Your task to perform on an android device: change your default location settings in chrome Image 0: 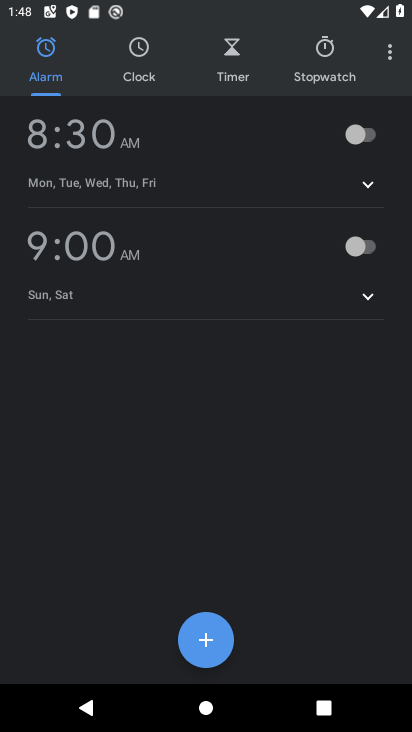
Step 0: press home button
Your task to perform on an android device: change your default location settings in chrome Image 1: 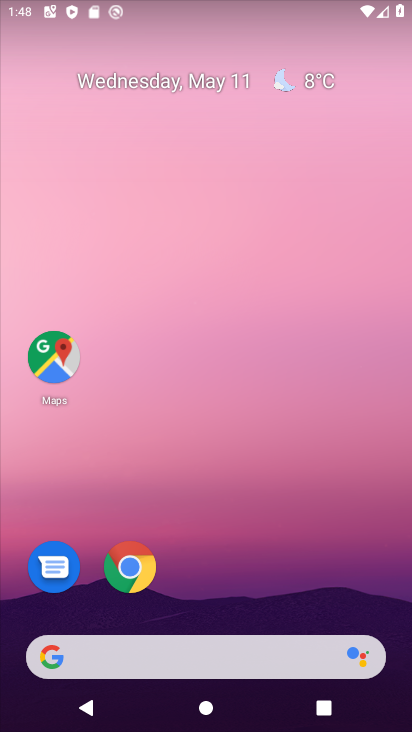
Step 1: click (123, 567)
Your task to perform on an android device: change your default location settings in chrome Image 2: 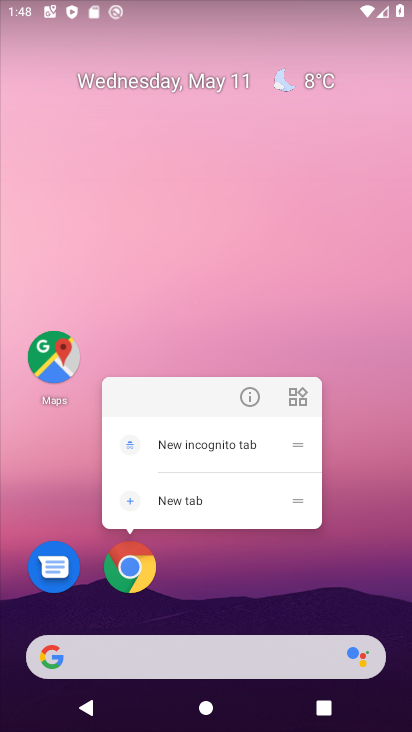
Step 2: click (123, 567)
Your task to perform on an android device: change your default location settings in chrome Image 3: 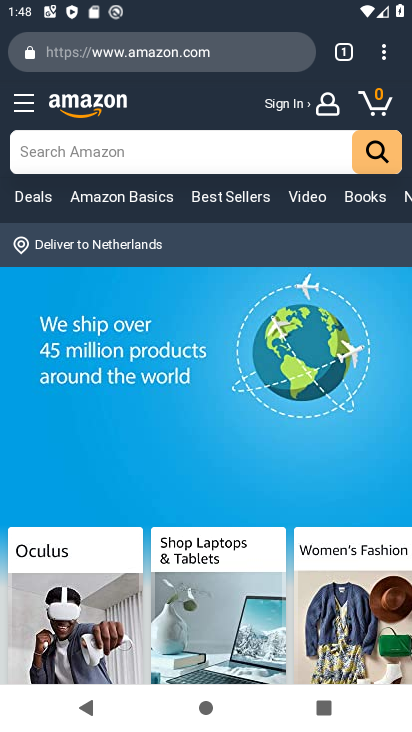
Step 3: click (388, 51)
Your task to perform on an android device: change your default location settings in chrome Image 4: 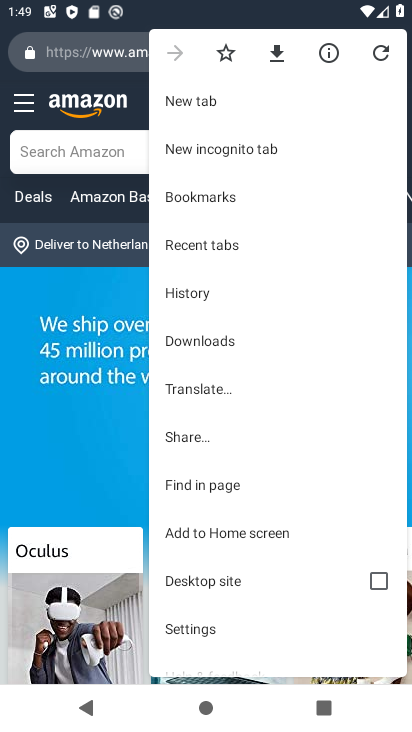
Step 4: click (231, 625)
Your task to perform on an android device: change your default location settings in chrome Image 5: 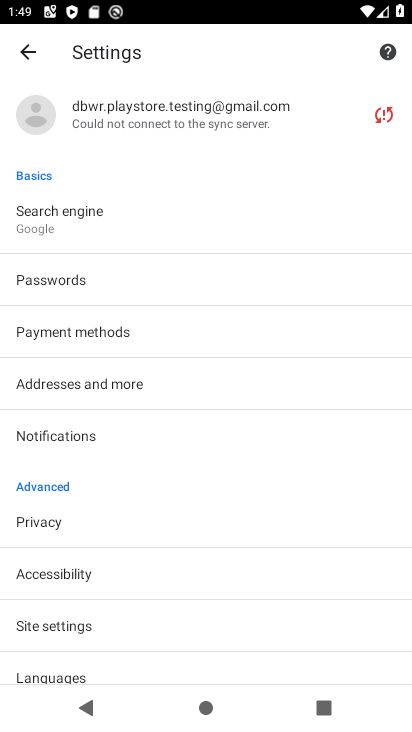
Step 5: click (164, 620)
Your task to perform on an android device: change your default location settings in chrome Image 6: 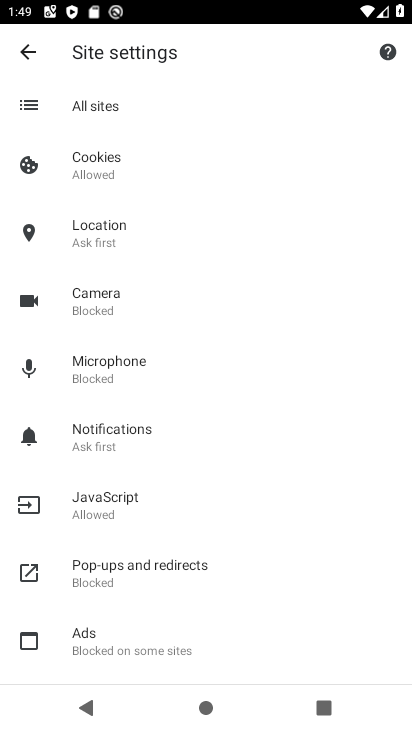
Step 6: click (169, 221)
Your task to perform on an android device: change your default location settings in chrome Image 7: 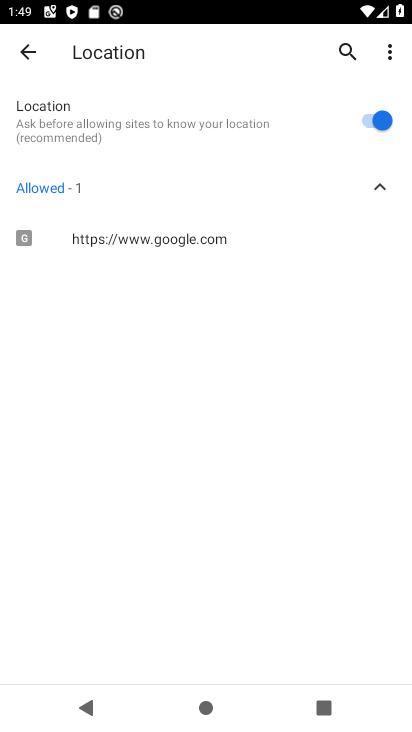
Step 7: click (371, 113)
Your task to perform on an android device: change your default location settings in chrome Image 8: 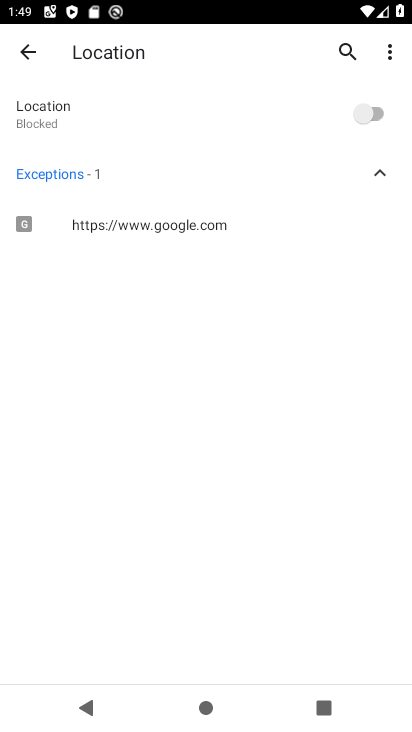
Step 8: task complete